Your task to perform on an android device: turn on translation in the chrome app Image 0: 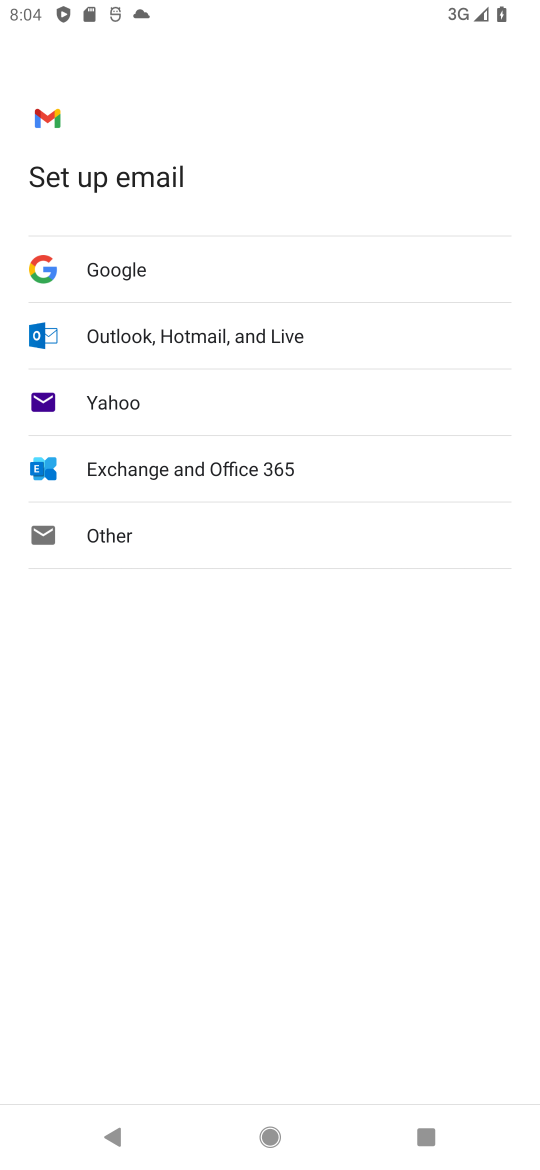
Step 0: press home button
Your task to perform on an android device: turn on translation in the chrome app Image 1: 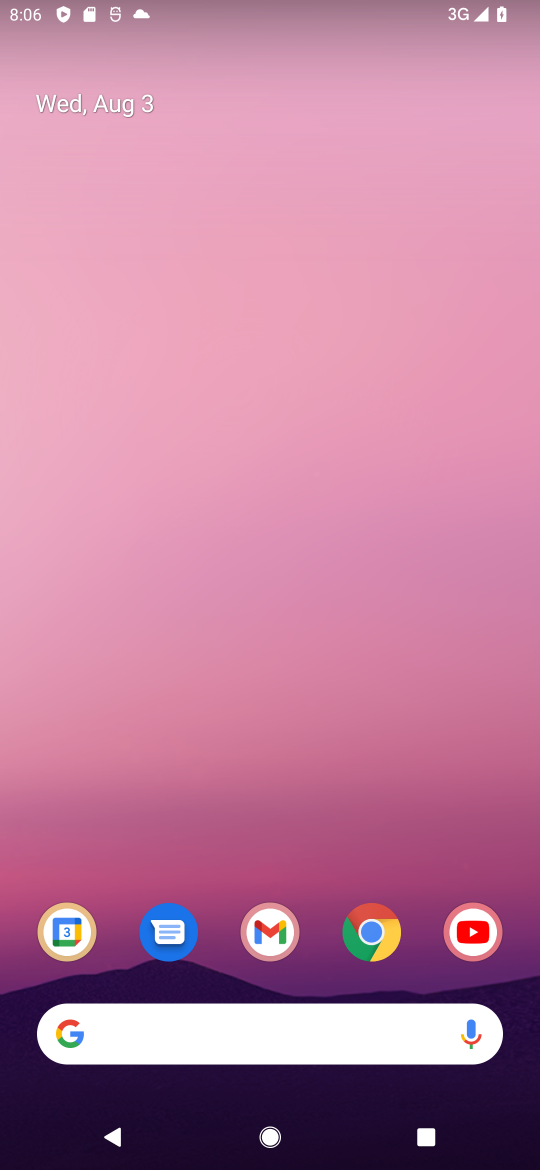
Step 1: click (367, 935)
Your task to perform on an android device: turn on translation in the chrome app Image 2: 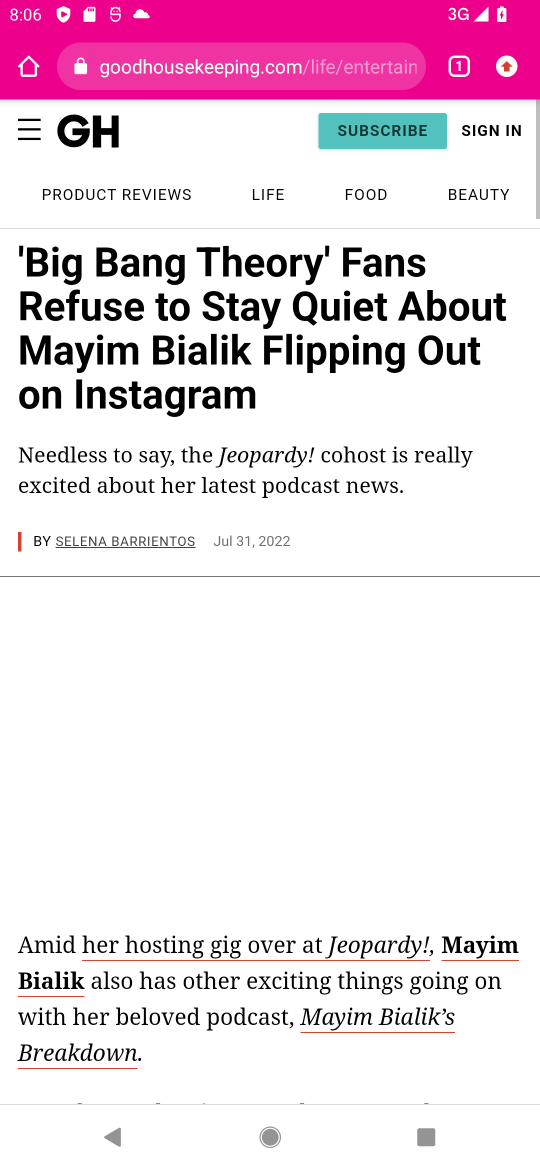
Step 2: click (508, 71)
Your task to perform on an android device: turn on translation in the chrome app Image 3: 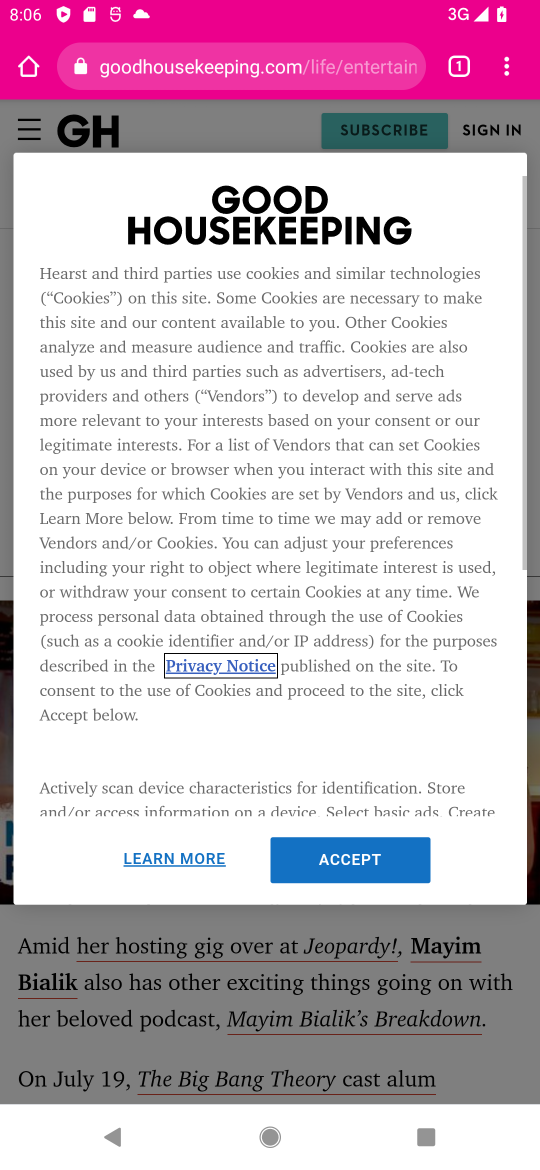
Step 3: click (508, 71)
Your task to perform on an android device: turn on translation in the chrome app Image 4: 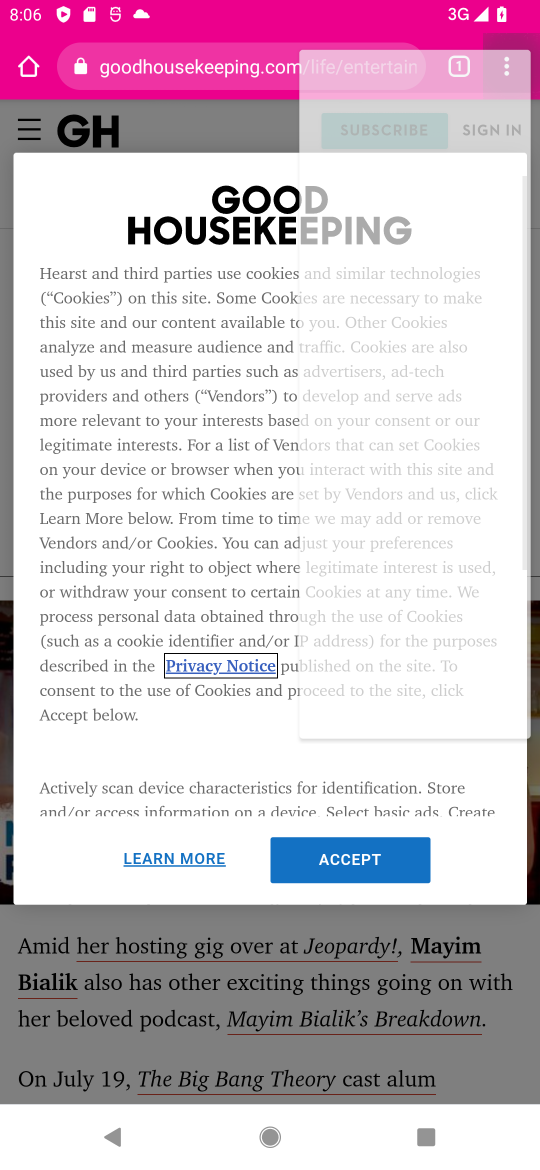
Step 4: click (479, 27)
Your task to perform on an android device: turn on translation in the chrome app Image 5: 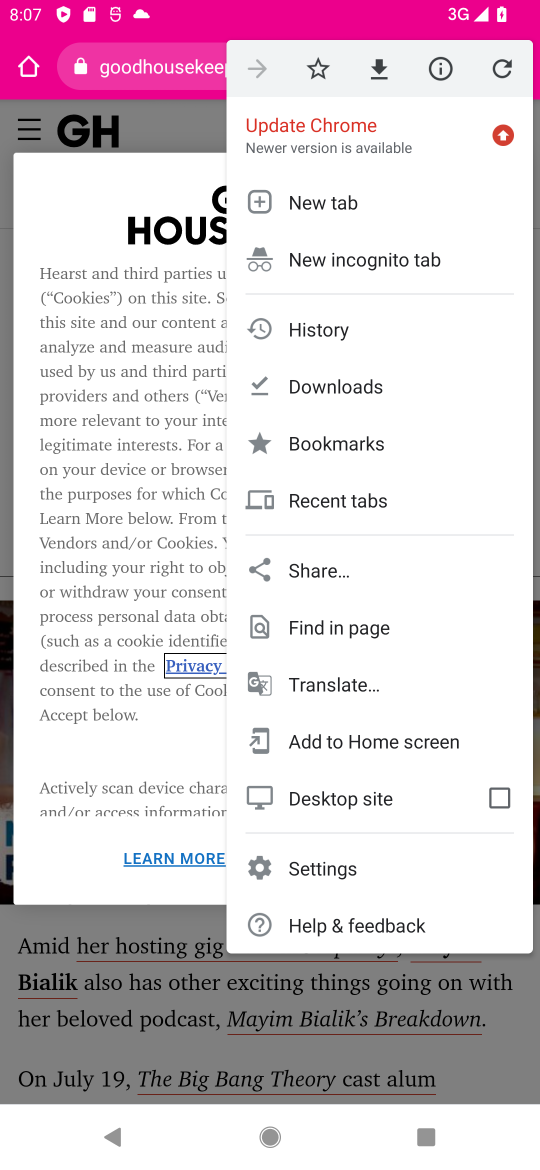
Step 5: click (333, 866)
Your task to perform on an android device: turn on translation in the chrome app Image 6: 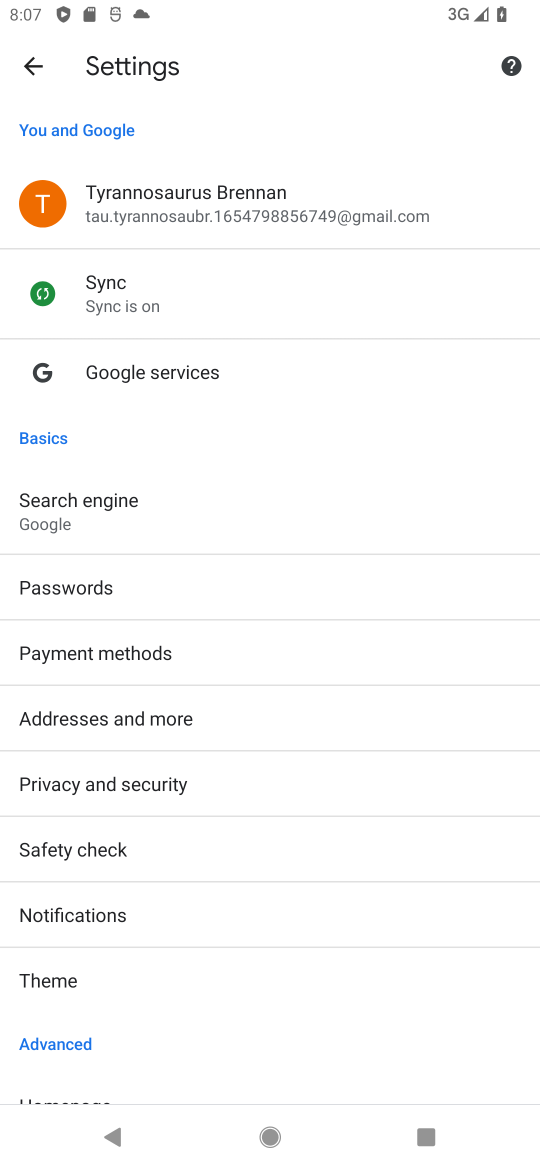
Step 6: drag from (184, 821) to (413, 79)
Your task to perform on an android device: turn on translation in the chrome app Image 7: 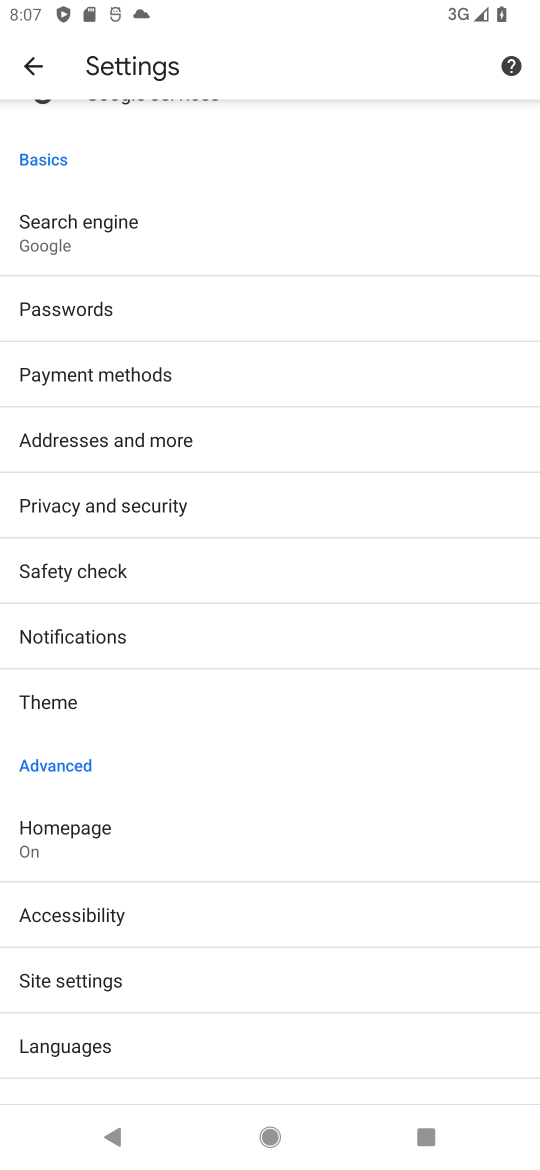
Step 7: click (137, 1033)
Your task to perform on an android device: turn on translation in the chrome app Image 8: 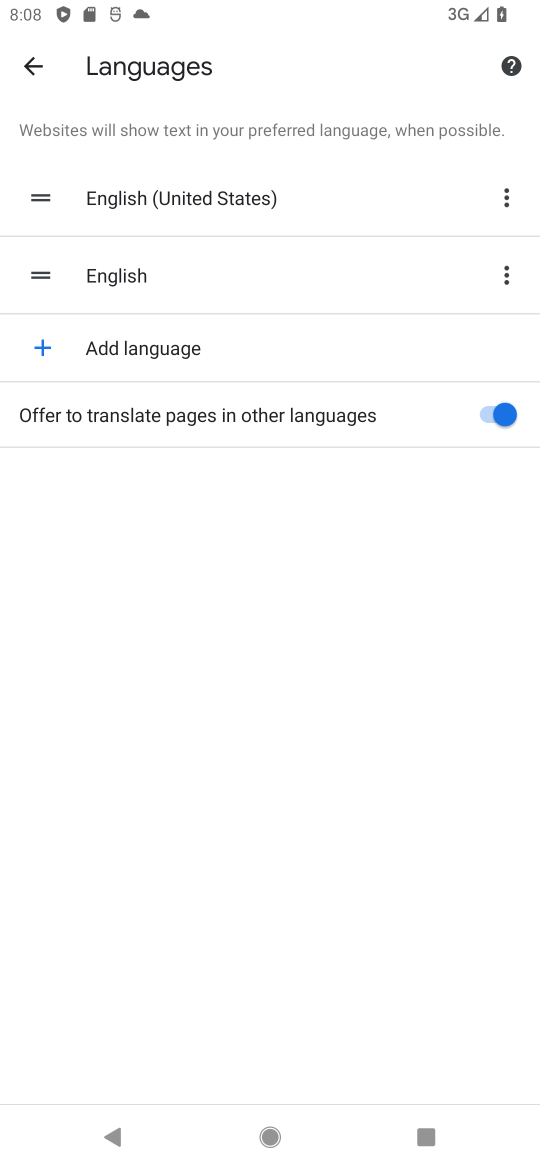
Step 8: task complete